Your task to perform on an android device: set an alarm Image 0: 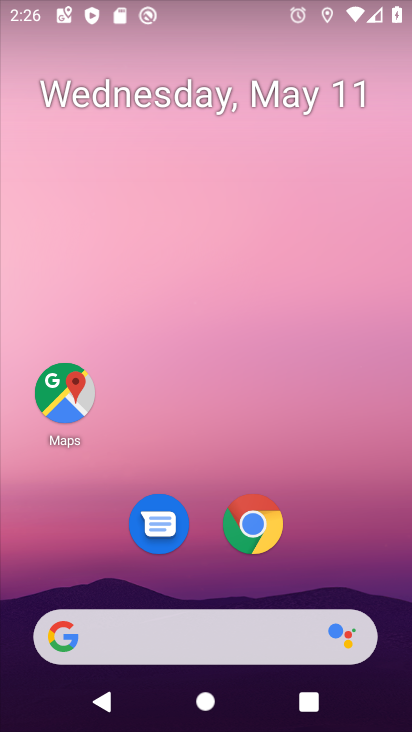
Step 0: drag from (323, 523) to (311, 76)
Your task to perform on an android device: set an alarm Image 1: 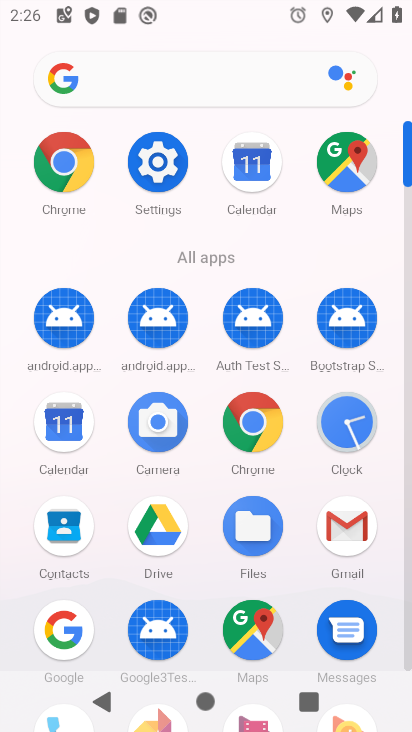
Step 1: click (333, 417)
Your task to perform on an android device: set an alarm Image 2: 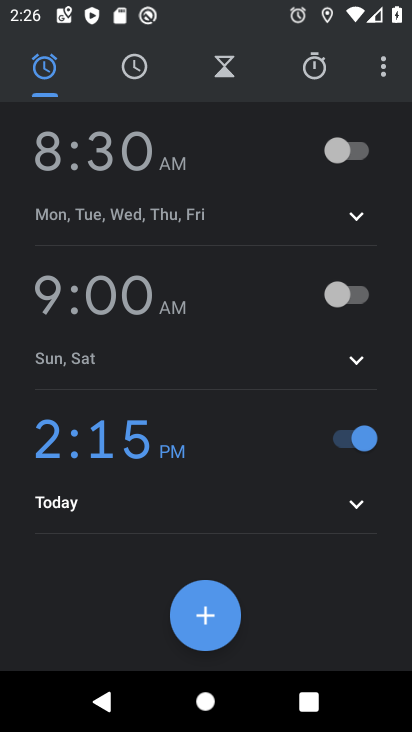
Step 2: click (205, 606)
Your task to perform on an android device: set an alarm Image 3: 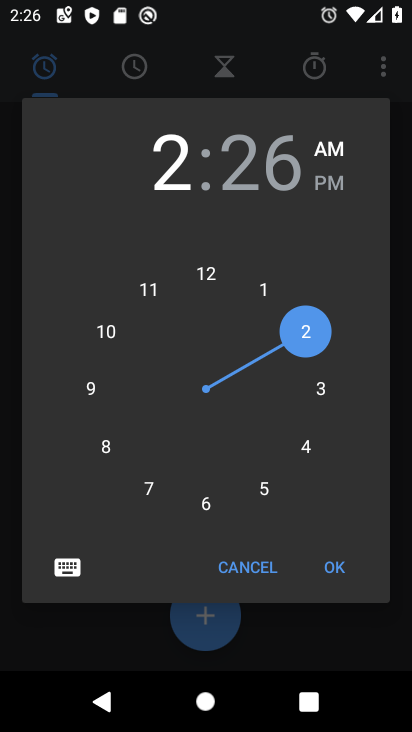
Step 3: click (268, 178)
Your task to perform on an android device: set an alarm Image 4: 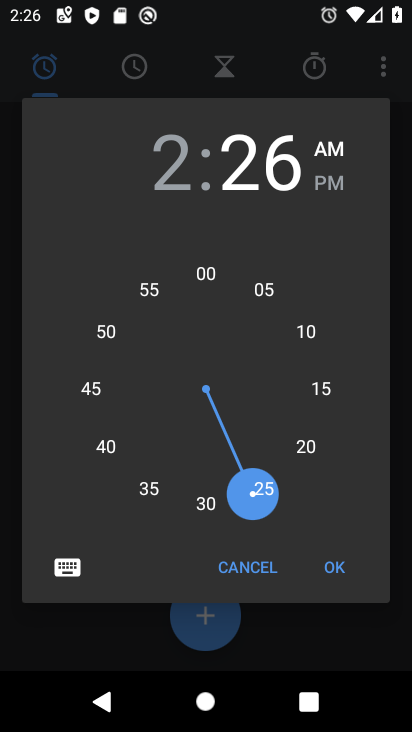
Step 4: click (202, 502)
Your task to perform on an android device: set an alarm Image 5: 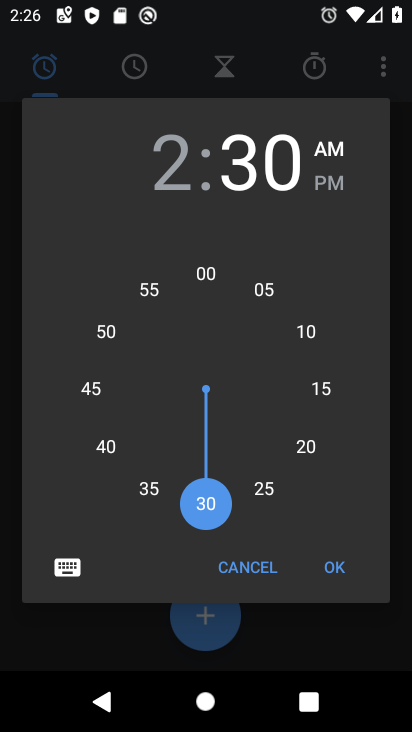
Step 5: click (333, 173)
Your task to perform on an android device: set an alarm Image 6: 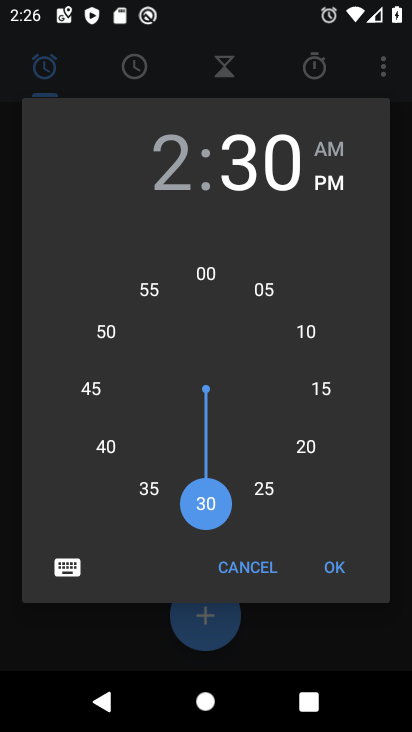
Step 6: click (329, 568)
Your task to perform on an android device: set an alarm Image 7: 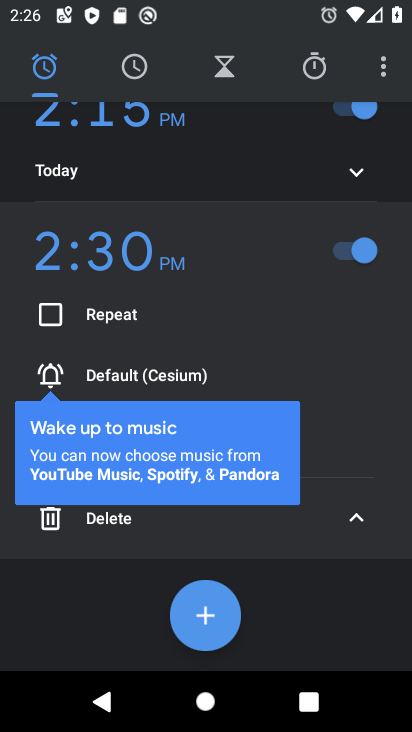
Step 7: task complete